Your task to perform on an android device: turn on javascript in the chrome app Image 0: 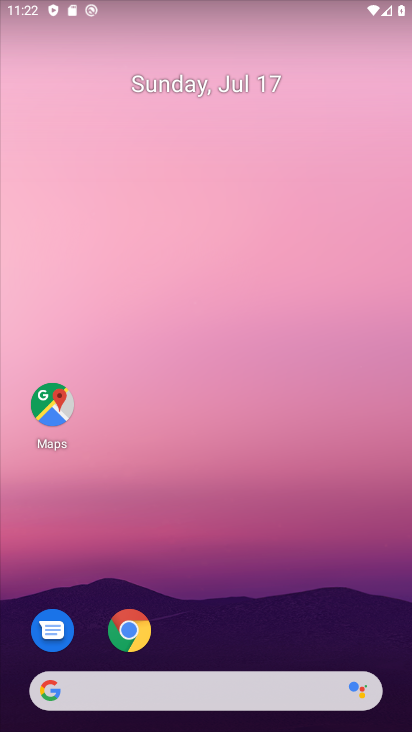
Step 0: click (130, 630)
Your task to perform on an android device: turn on javascript in the chrome app Image 1: 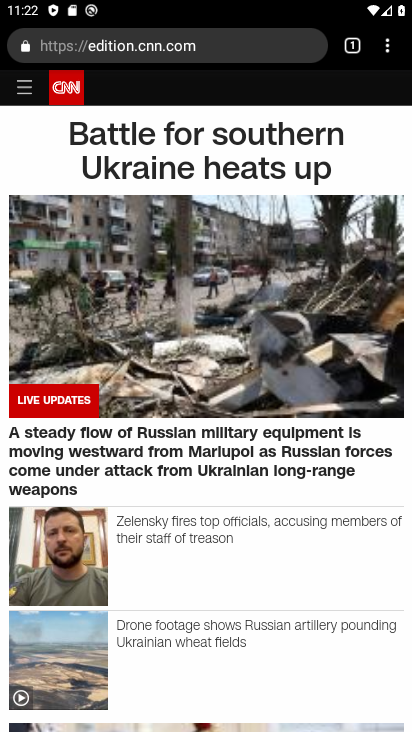
Step 1: click (386, 50)
Your task to perform on an android device: turn on javascript in the chrome app Image 2: 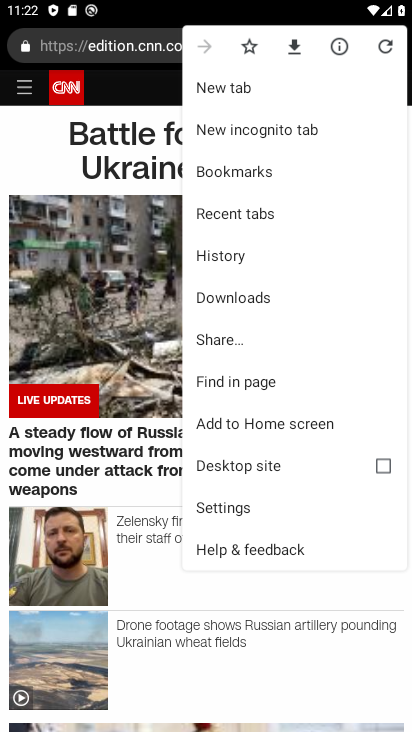
Step 2: click (230, 513)
Your task to perform on an android device: turn on javascript in the chrome app Image 3: 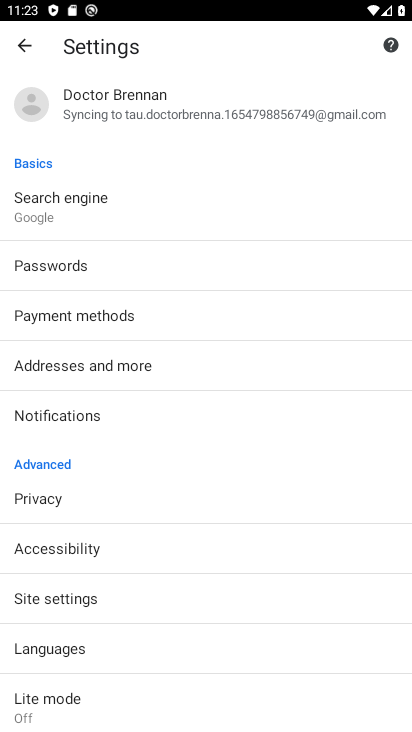
Step 3: click (72, 601)
Your task to perform on an android device: turn on javascript in the chrome app Image 4: 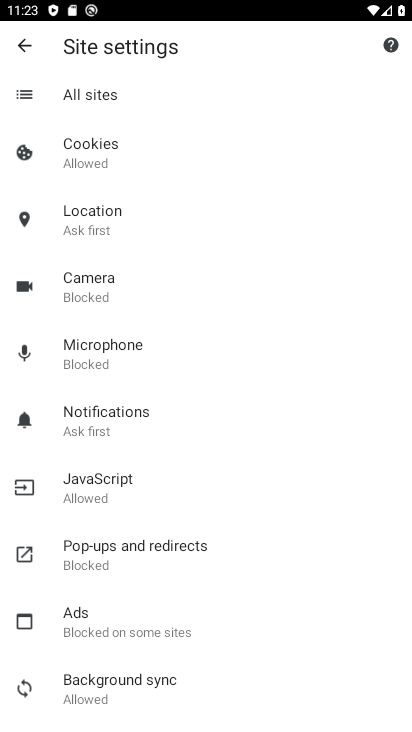
Step 4: click (91, 494)
Your task to perform on an android device: turn on javascript in the chrome app Image 5: 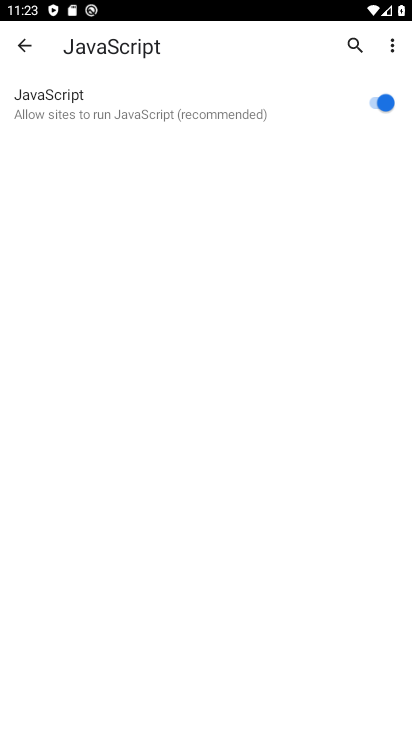
Step 5: task complete